Your task to perform on an android device: Open wifi settings Image 0: 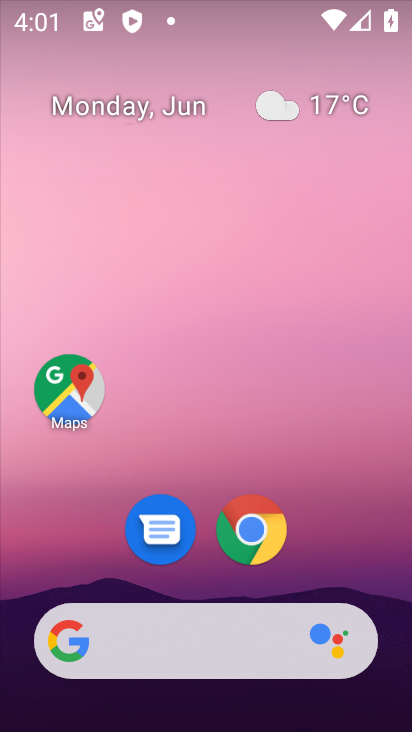
Step 0: drag from (343, 562) to (264, 44)
Your task to perform on an android device: Open wifi settings Image 1: 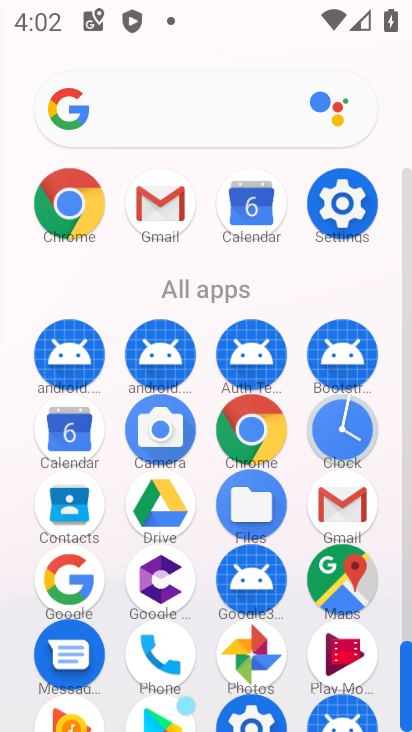
Step 1: click (343, 202)
Your task to perform on an android device: Open wifi settings Image 2: 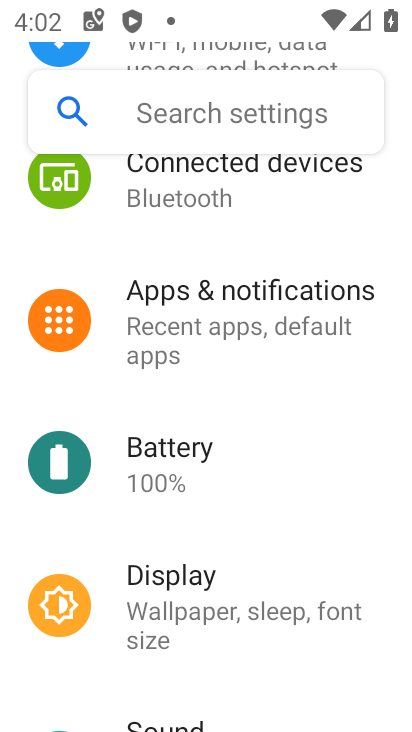
Step 2: drag from (240, 215) to (260, 542)
Your task to perform on an android device: Open wifi settings Image 3: 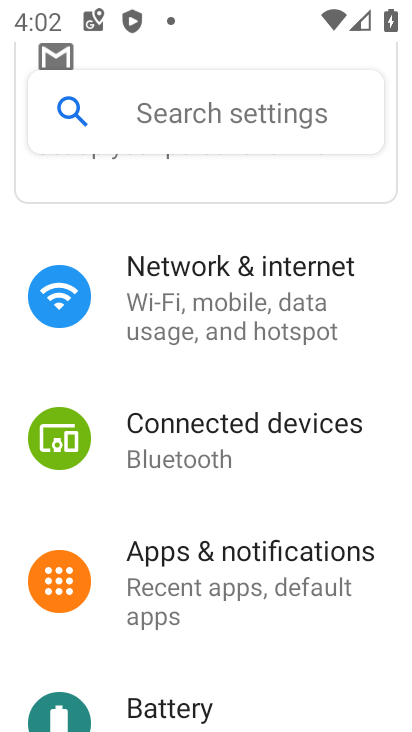
Step 3: click (175, 275)
Your task to perform on an android device: Open wifi settings Image 4: 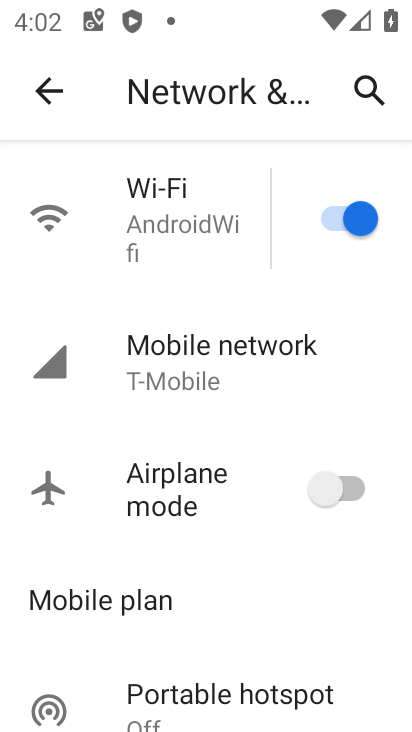
Step 4: click (150, 229)
Your task to perform on an android device: Open wifi settings Image 5: 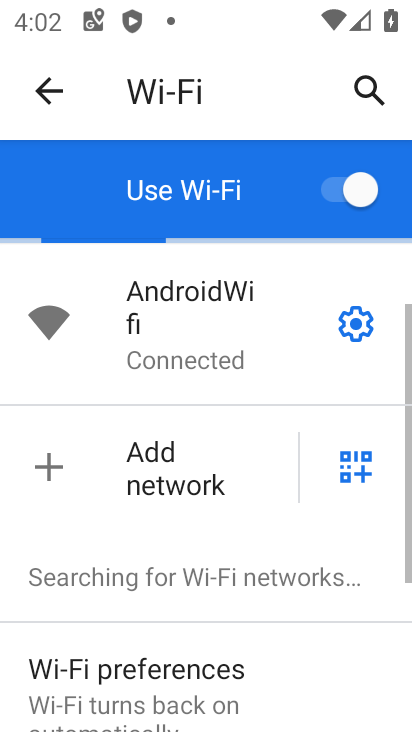
Step 5: click (359, 326)
Your task to perform on an android device: Open wifi settings Image 6: 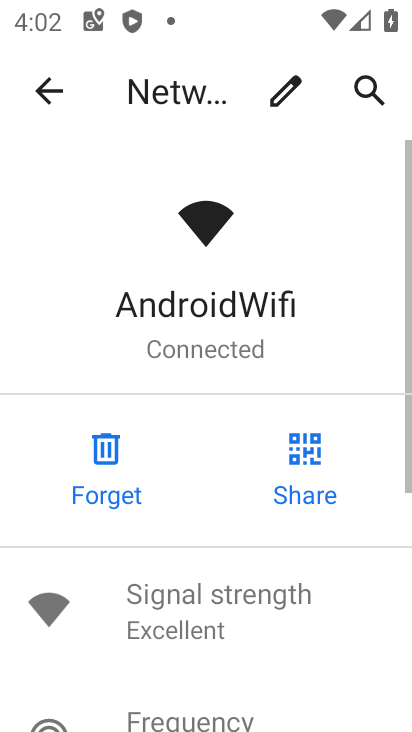
Step 6: task complete